Your task to perform on an android device: open wifi settings Image 0: 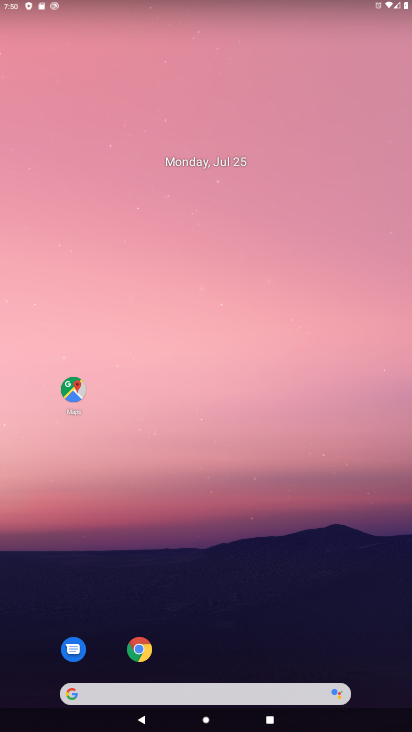
Step 0: drag from (396, 666) to (346, 258)
Your task to perform on an android device: open wifi settings Image 1: 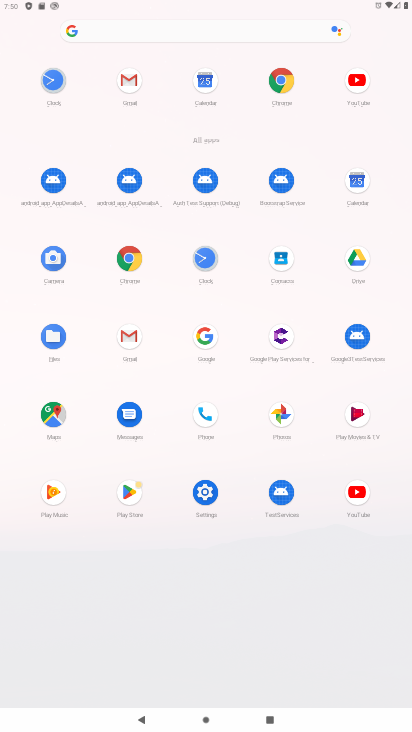
Step 1: click (205, 494)
Your task to perform on an android device: open wifi settings Image 2: 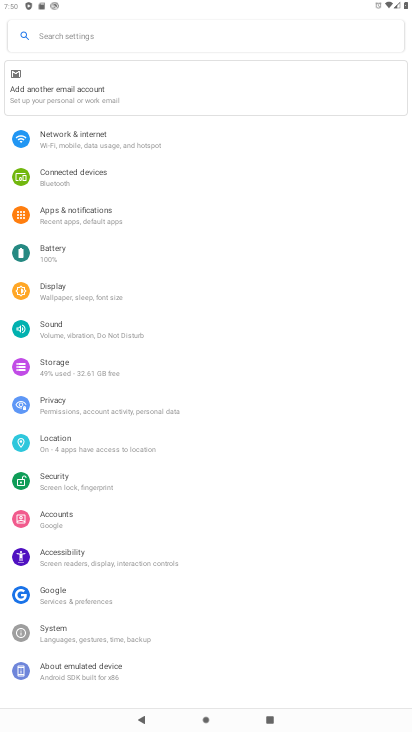
Step 2: click (63, 135)
Your task to perform on an android device: open wifi settings Image 3: 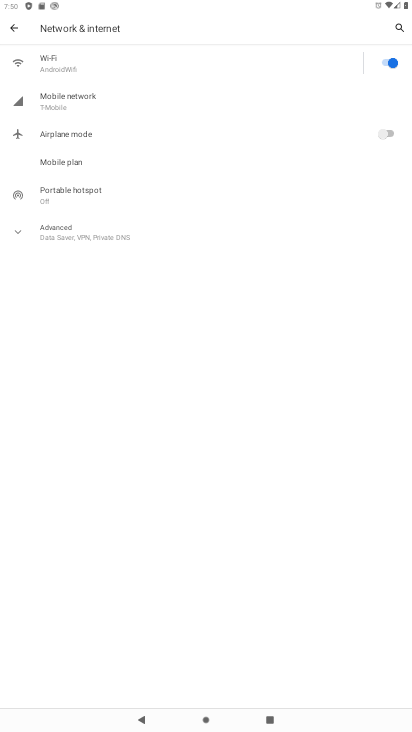
Step 3: click (11, 58)
Your task to perform on an android device: open wifi settings Image 4: 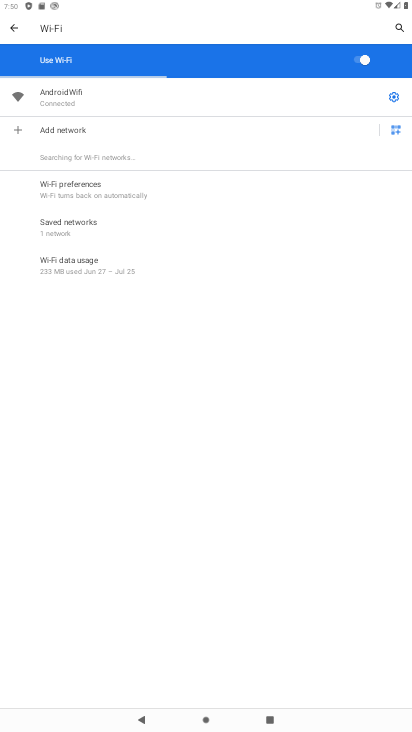
Step 4: click (394, 97)
Your task to perform on an android device: open wifi settings Image 5: 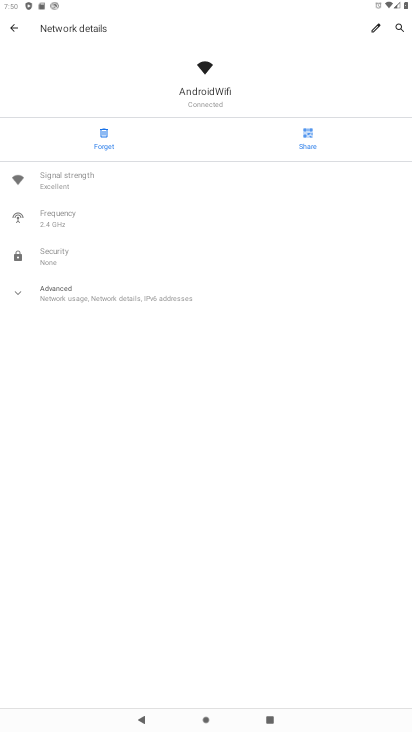
Step 5: click (17, 292)
Your task to perform on an android device: open wifi settings Image 6: 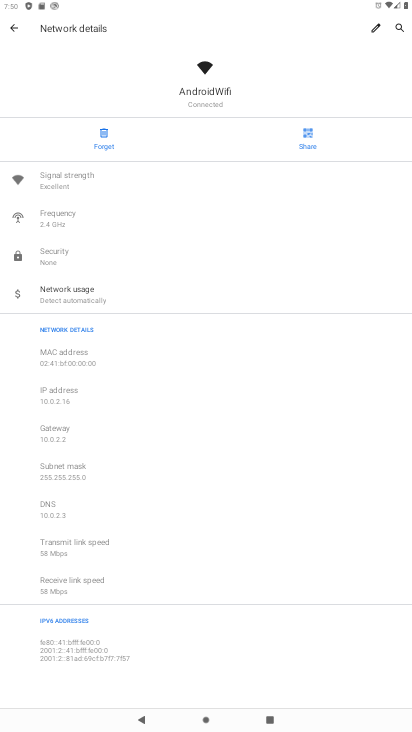
Step 6: task complete